Your task to perform on an android device: Search for seafood restaurants on Google Maps Image 0: 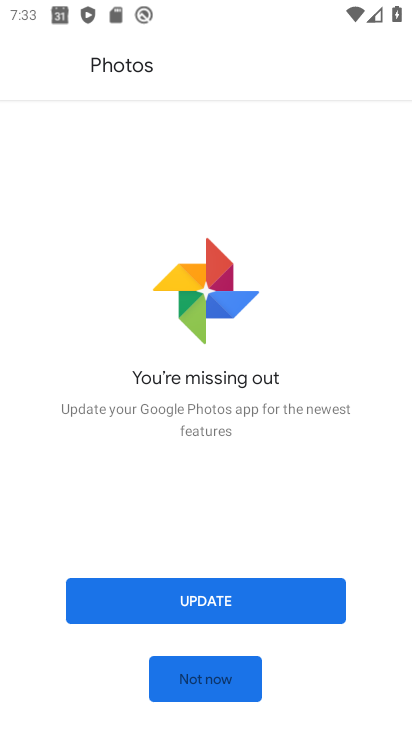
Step 0: press home button
Your task to perform on an android device: Search for seafood restaurants on Google Maps Image 1: 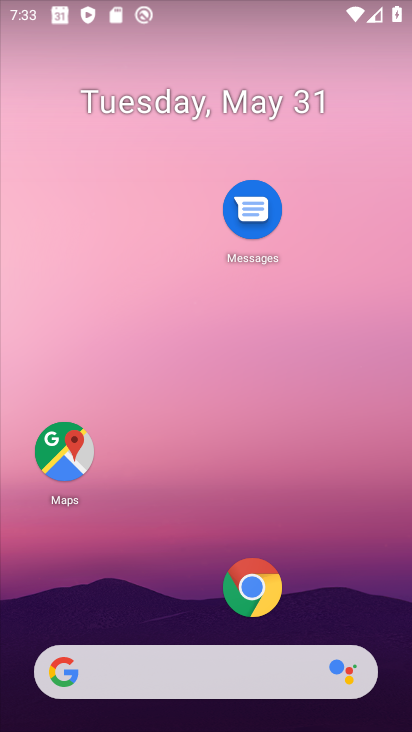
Step 1: drag from (206, 614) to (224, 142)
Your task to perform on an android device: Search for seafood restaurants on Google Maps Image 2: 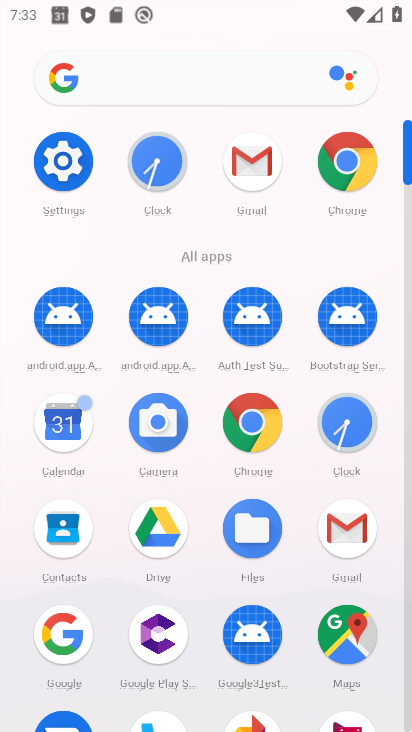
Step 2: click (348, 634)
Your task to perform on an android device: Search for seafood restaurants on Google Maps Image 3: 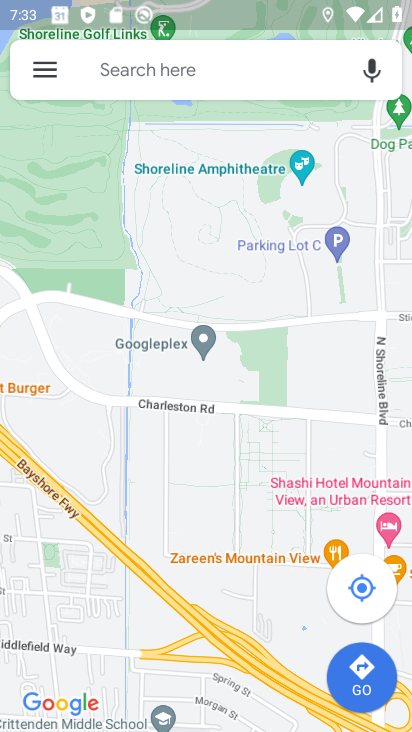
Step 3: click (137, 63)
Your task to perform on an android device: Search for seafood restaurants on Google Maps Image 4: 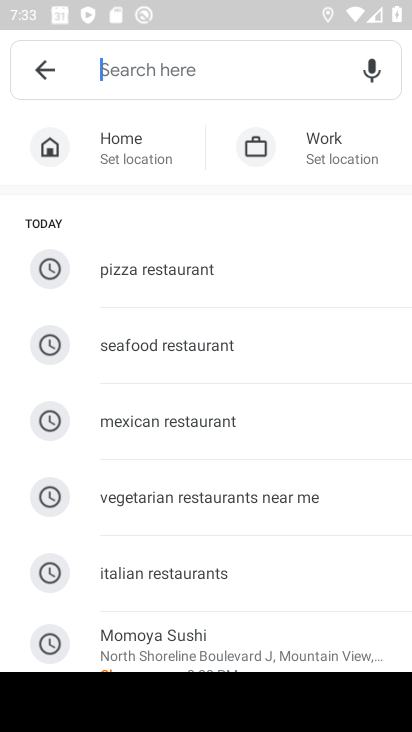
Step 4: click (143, 338)
Your task to perform on an android device: Search for seafood restaurants on Google Maps Image 5: 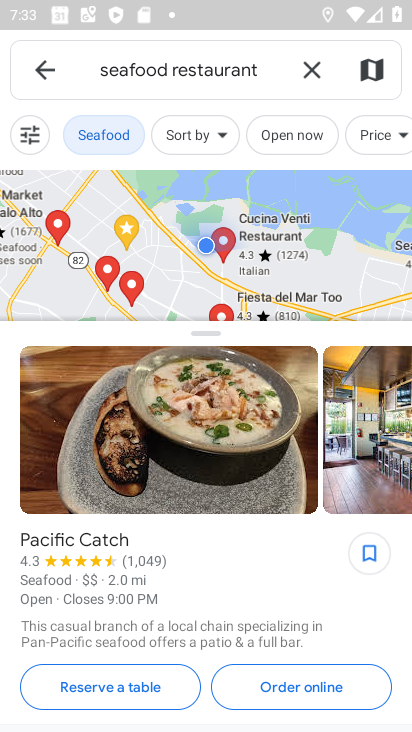
Step 5: task complete